Your task to perform on an android device: turn off wifi Image 0: 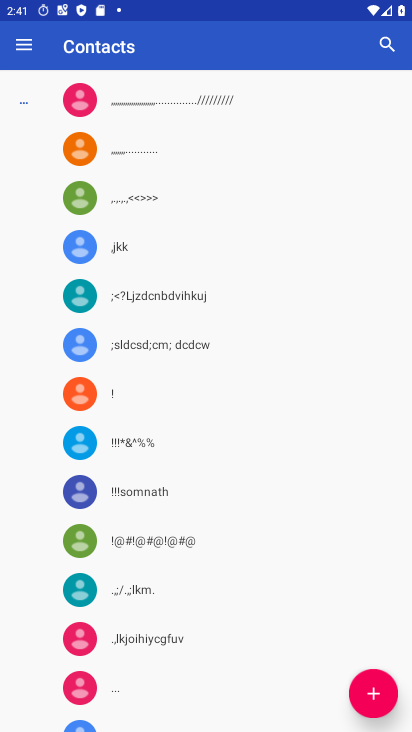
Step 0: press home button
Your task to perform on an android device: turn off wifi Image 1: 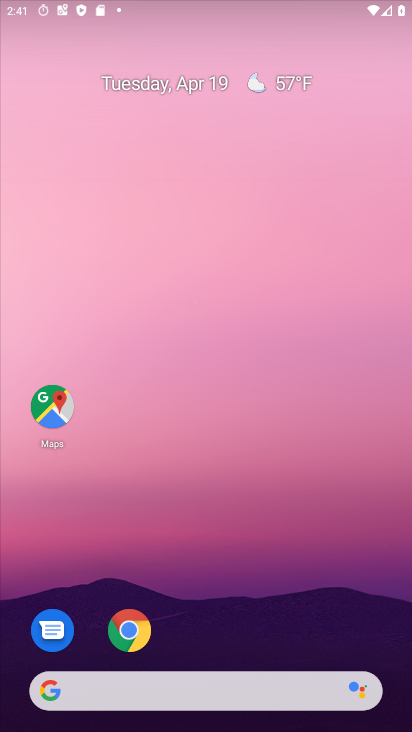
Step 1: drag from (207, 618) to (194, 46)
Your task to perform on an android device: turn off wifi Image 2: 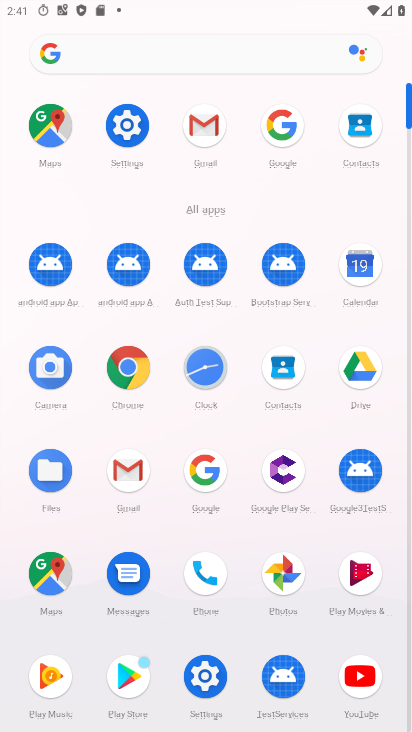
Step 2: click (122, 133)
Your task to perform on an android device: turn off wifi Image 3: 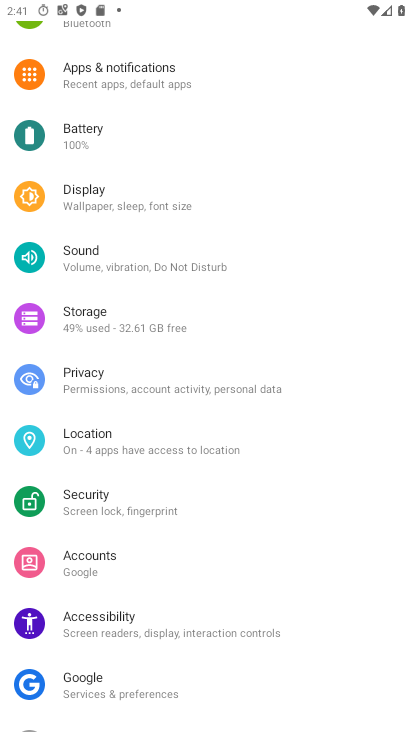
Step 3: drag from (219, 125) to (215, 575)
Your task to perform on an android device: turn off wifi Image 4: 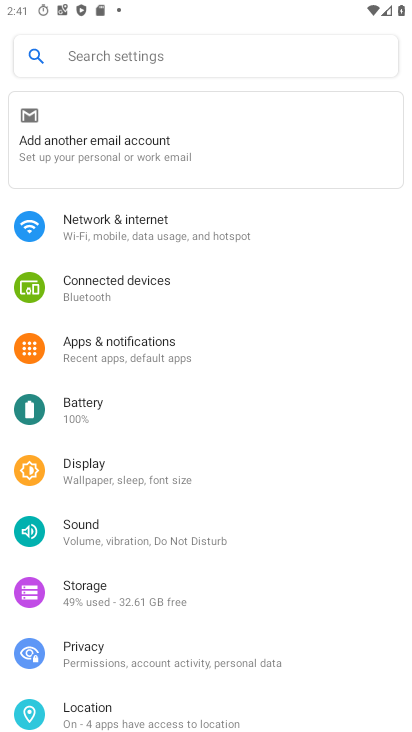
Step 4: click (150, 223)
Your task to perform on an android device: turn off wifi Image 5: 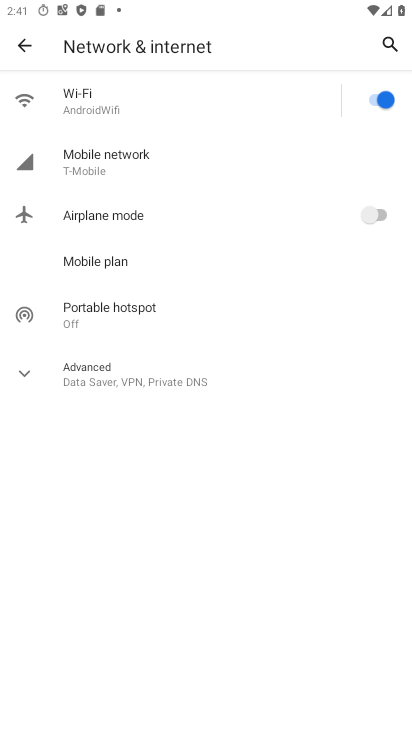
Step 5: click (388, 88)
Your task to perform on an android device: turn off wifi Image 6: 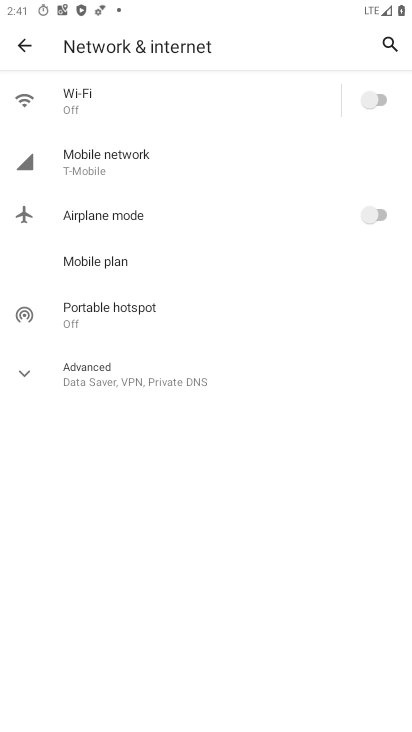
Step 6: task complete